Your task to perform on an android device: Open Youtube and go to the subscriptions tab Image 0: 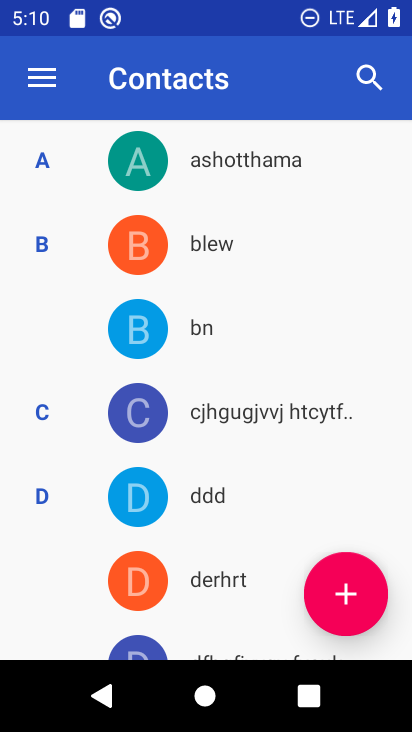
Step 0: press back button
Your task to perform on an android device: Open Youtube and go to the subscriptions tab Image 1: 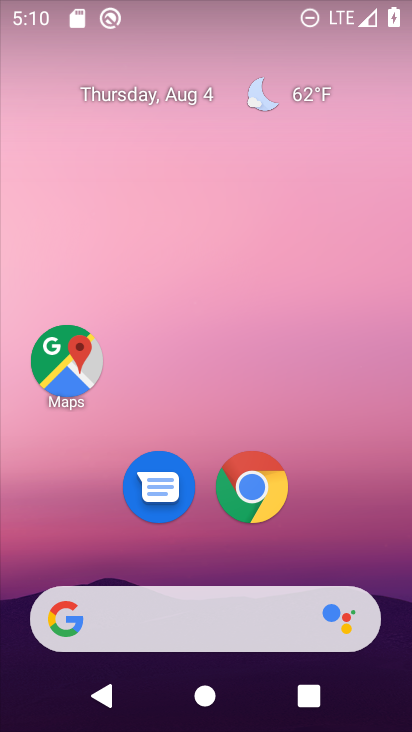
Step 1: drag from (200, 545) to (196, 57)
Your task to perform on an android device: Open Youtube and go to the subscriptions tab Image 2: 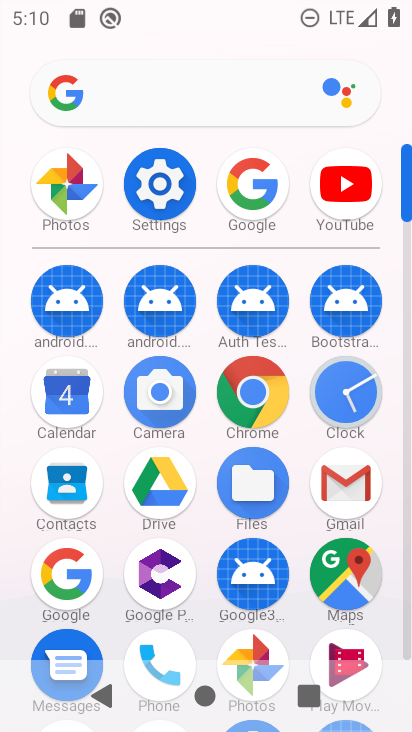
Step 2: click (343, 181)
Your task to perform on an android device: Open Youtube and go to the subscriptions tab Image 3: 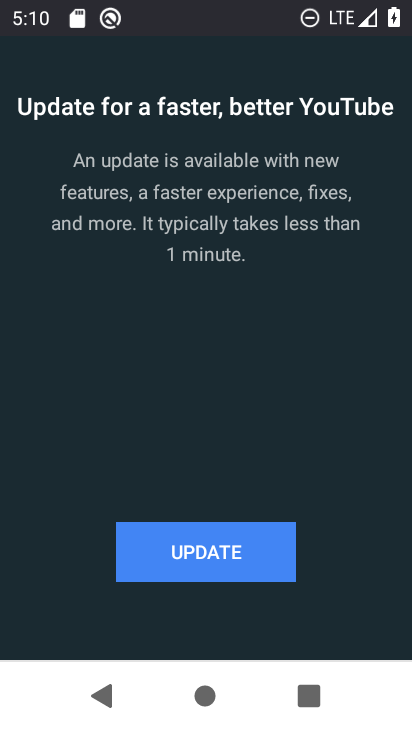
Step 3: press back button
Your task to perform on an android device: Open Youtube and go to the subscriptions tab Image 4: 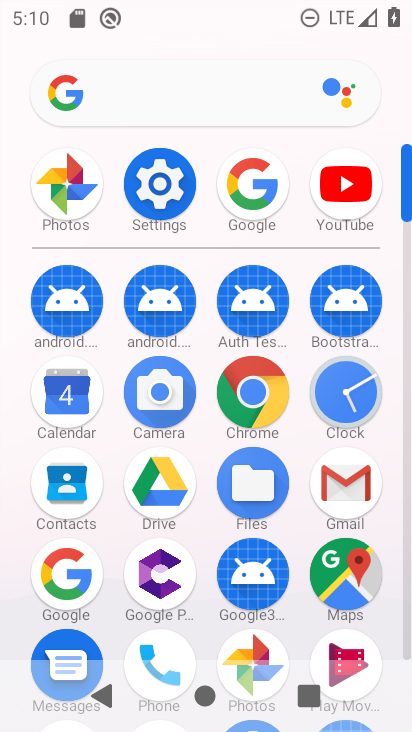
Step 4: click (329, 190)
Your task to perform on an android device: Open Youtube and go to the subscriptions tab Image 5: 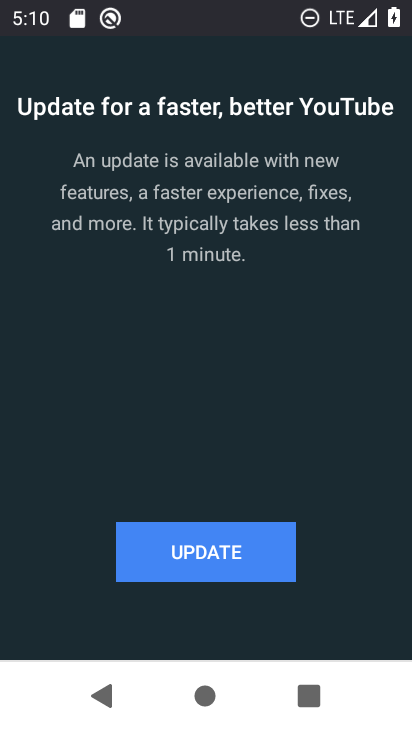
Step 5: task complete